Your task to perform on an android device: allow notifications from all sites in the chrome app Image 0: 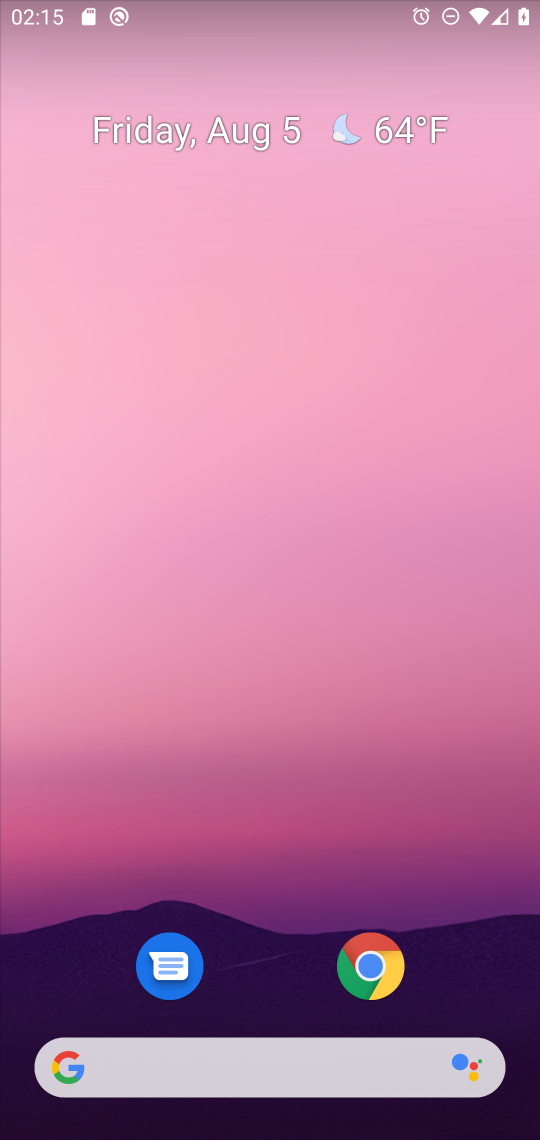
Step 0: click (384, 973)
Your task to perform on an android device: allow notifications from all sites in the chrome app Image 1: 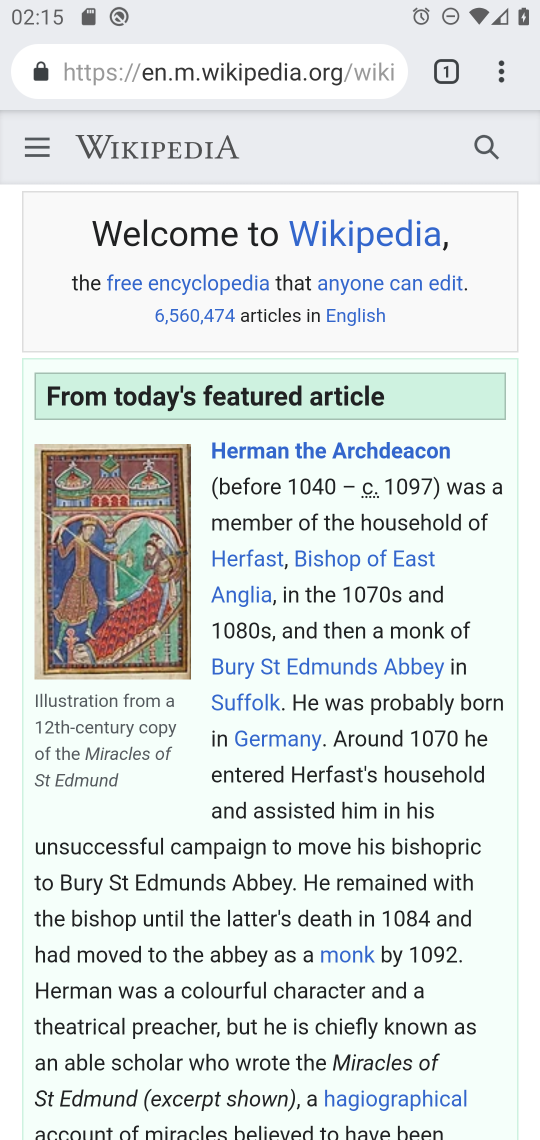
Step 1: click (506, 63)
Your task to perform on an android device: allow notifications from all sites in the chrome app Image 2: 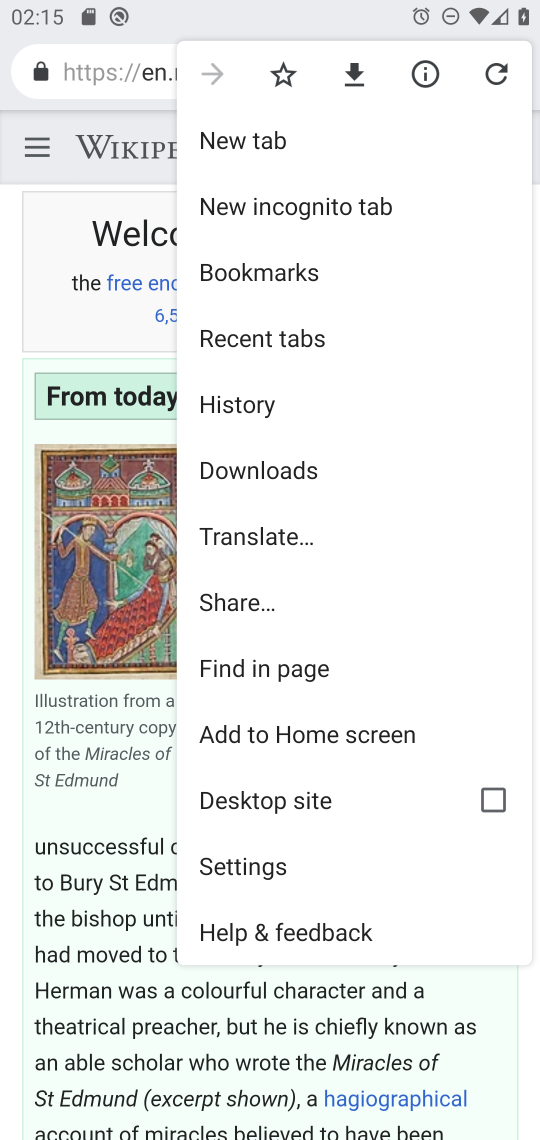
Step 2: click (274, 863)
Your task to perform on an android device: allow notifications from all sites in the chrome app Image 3: 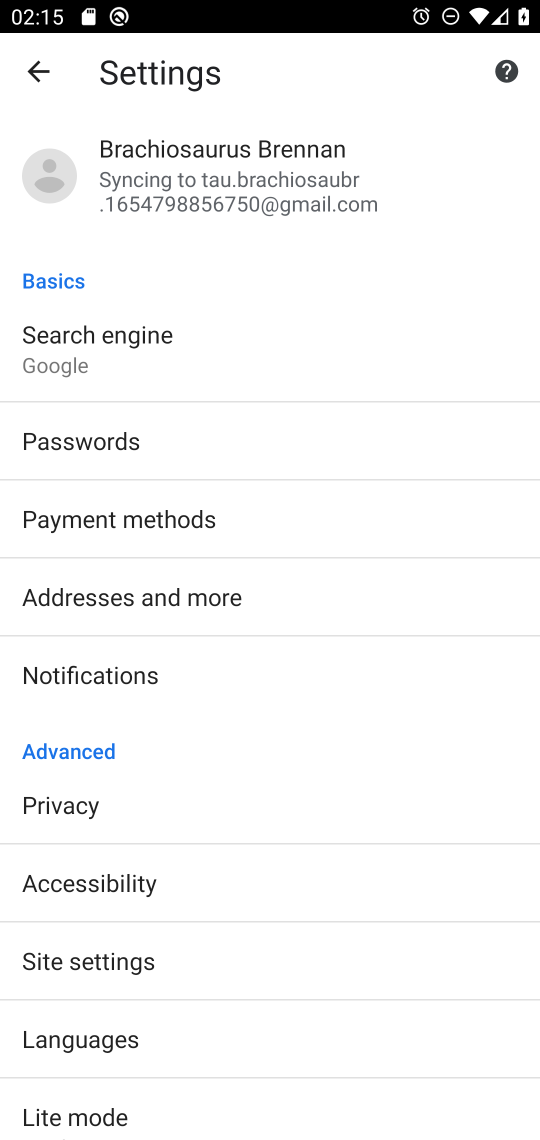
Step 3: click (281, 669)
Your task to perform on an android device: allow notifications from all sites in the chrome app Image 4: 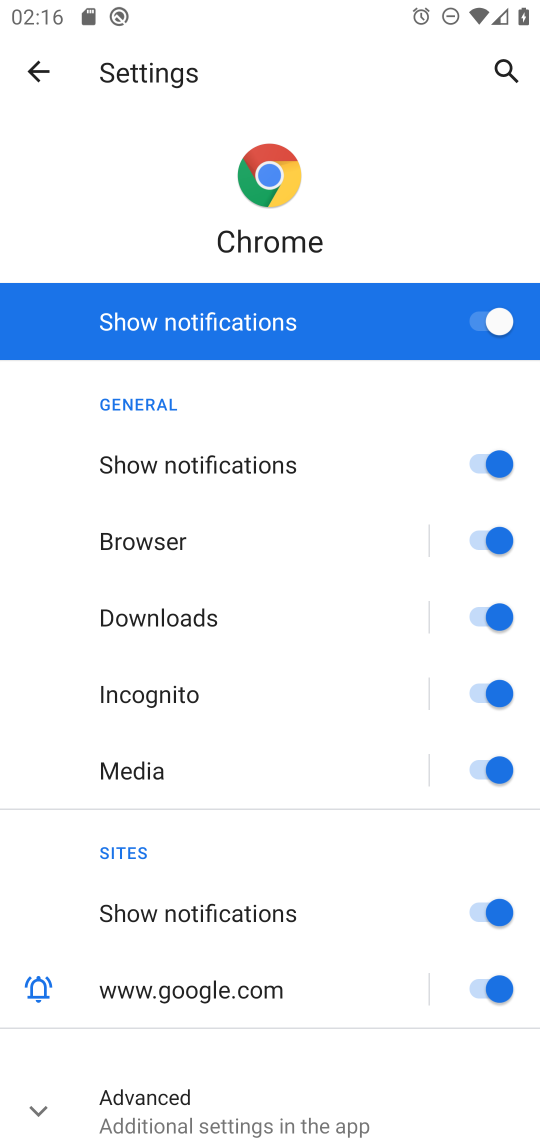
Step 4: task complete